Your task to perform on an android device: Open CNN.com Image 0: 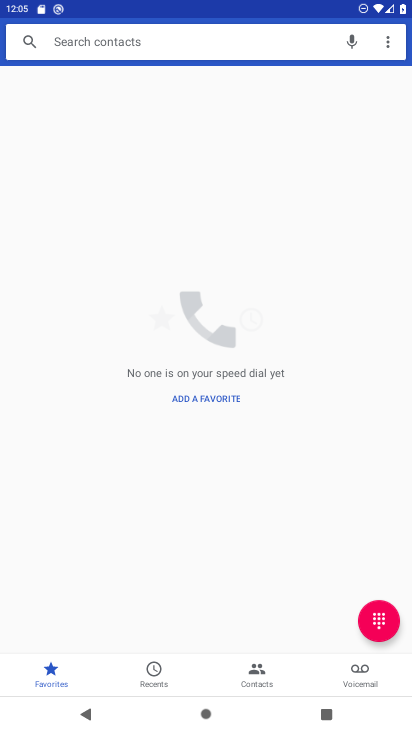
Step 0: press home button
Your task to perform on an android device: Open CNN.com Image 1: 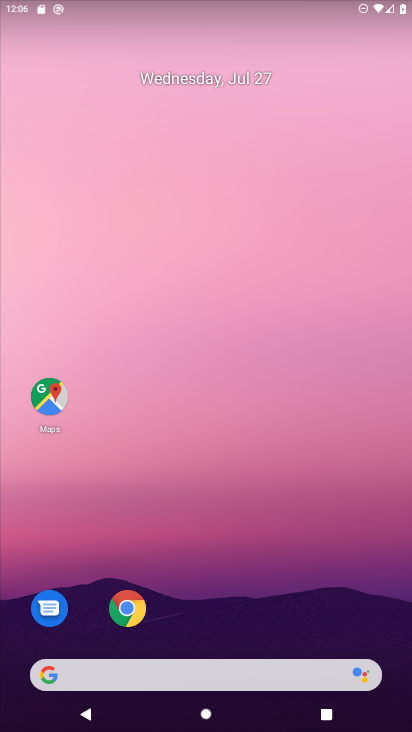
Step 1: drag from (348, 609) to (343, 132)
Your task to perform on an android device: Open CNN.com Image 2: 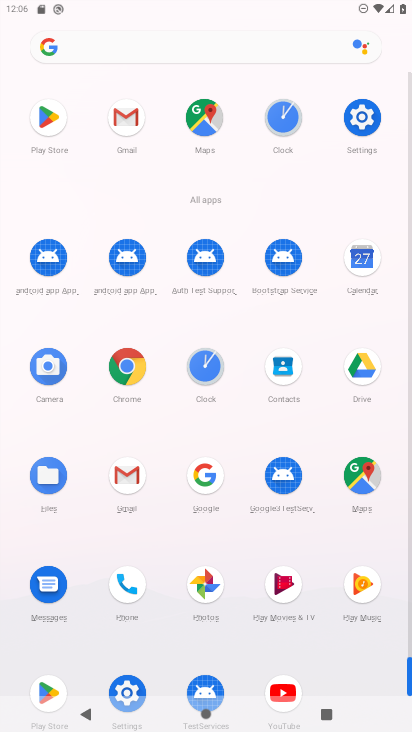
Step 2: click (125, 368)
Your task to perform on an android device: Open CNN.com Image 3: 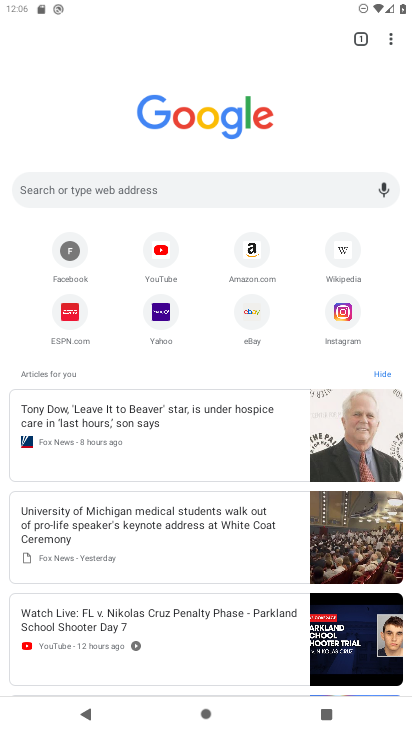
Step 3: click (243, 179)
Your task to perform on an android device: Open CNN.com Image 4: 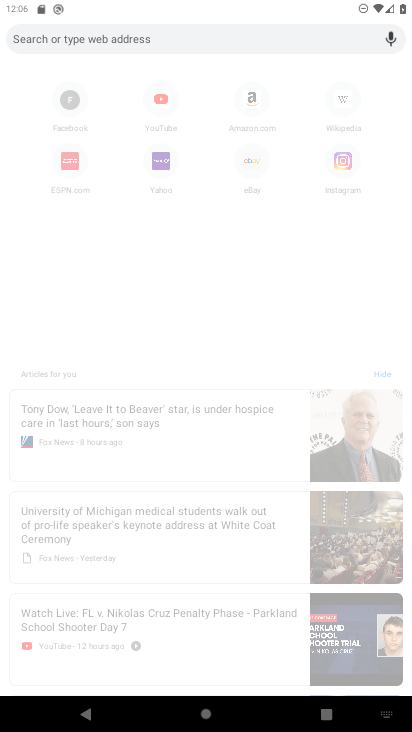
Step 4: type "cnn.com"
Your task to perform on an android device: Open CNN.com Image 5: 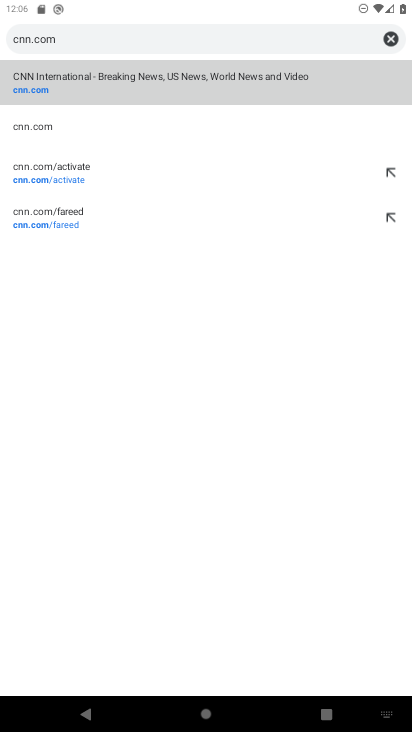
Step 5: click (196, 84)
Your task to perform on an android device: Open CNN.com Image 6: 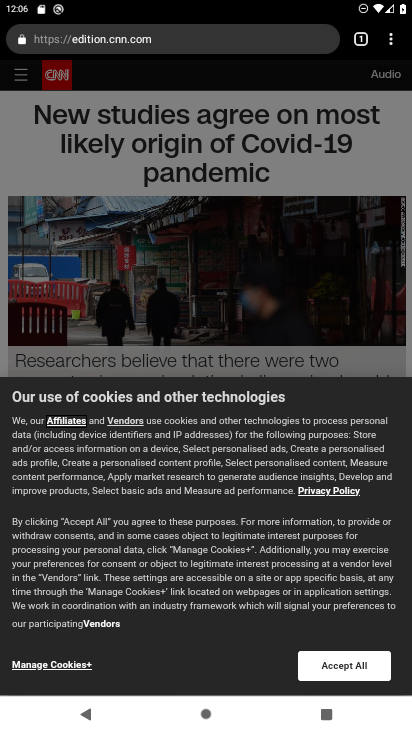
Step 6: task complete